Your task to perform on an android device: change the clock display to digital Image 0: 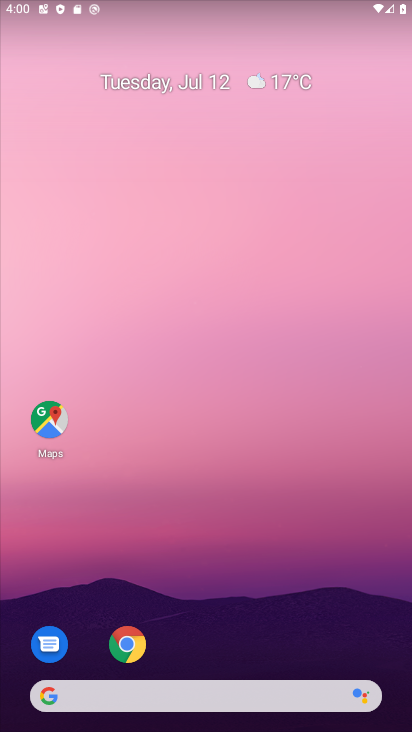
Step 0: drag from (244, 636) to (259, 55)
Your task to perform on an android device: change the clock display to digital Image 1: 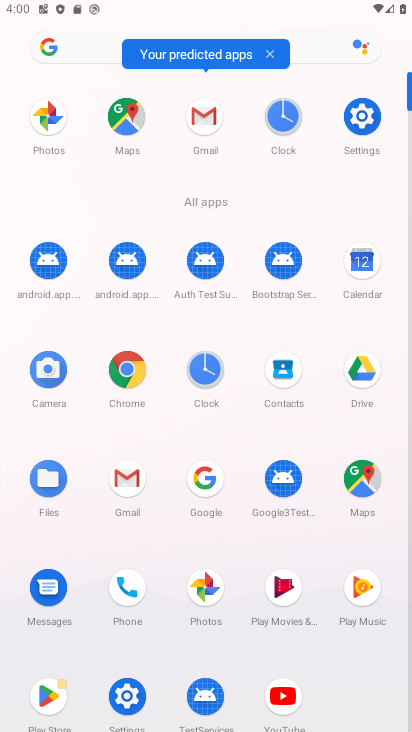
Step 1: click (212, 359)
Your task to perform on an android device: change the clock display to digital Image 2: 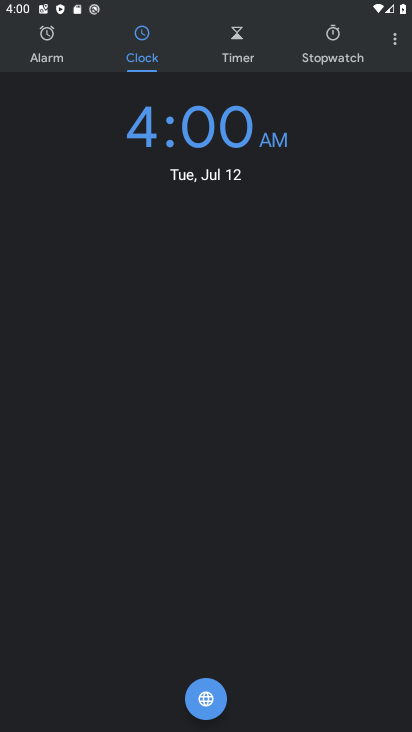
Step 2: click (399, 39)
Your task to perform on an android device: change the clock display to digital Image 3: 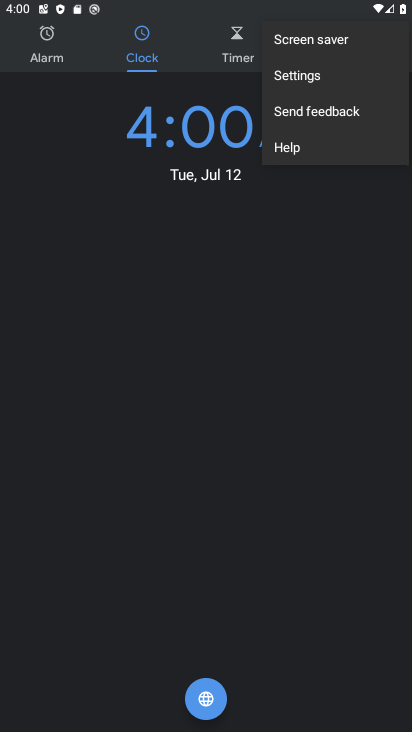
Step 3: click (377, 74)
Your task to perform on an android device: change the clock display to digital Image 4: 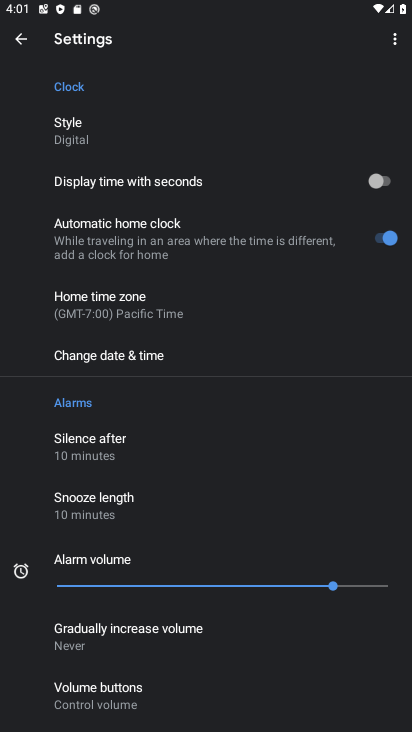
Step 4: click (239, 133)
Your task to perform on an android device: change the clock display to digital Image 5: 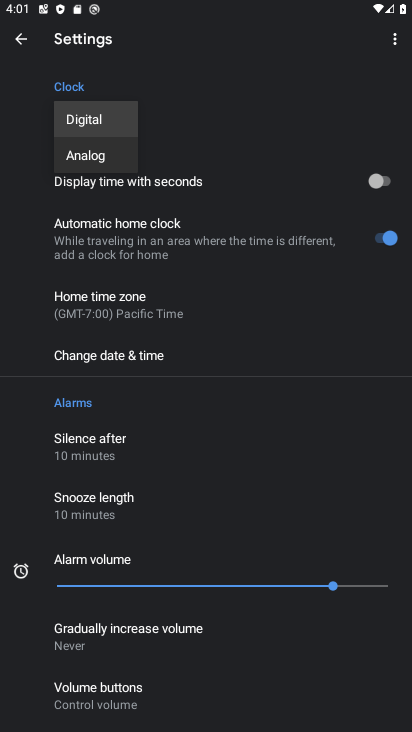
Step 5: task complete